Your task to perform on an android device: Go to settings Image 0: 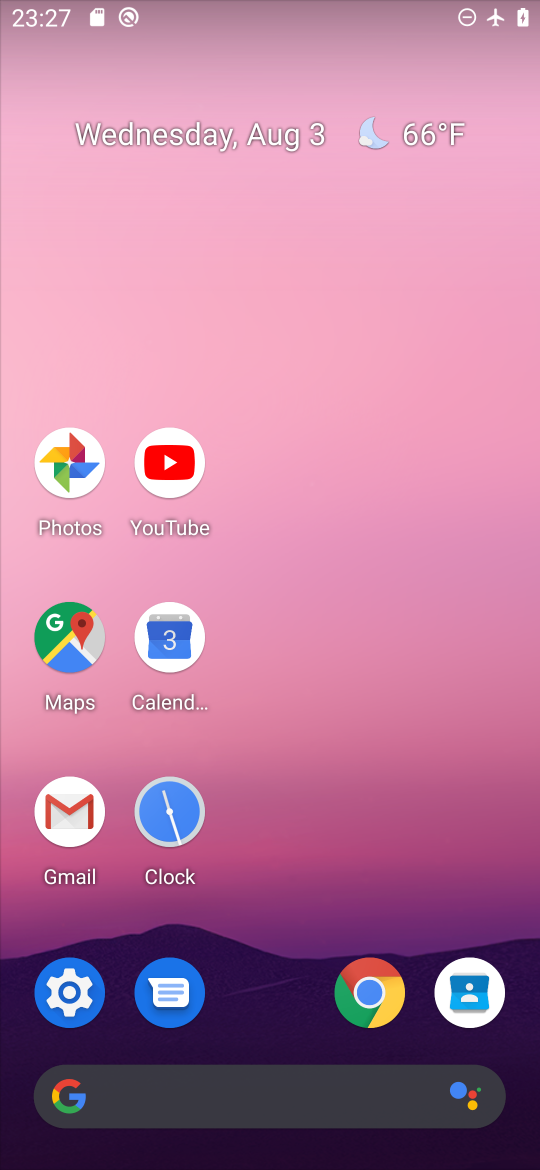
Step 0: click (72, 980)
Your task to perform on an android device: Go to settings Image 1: 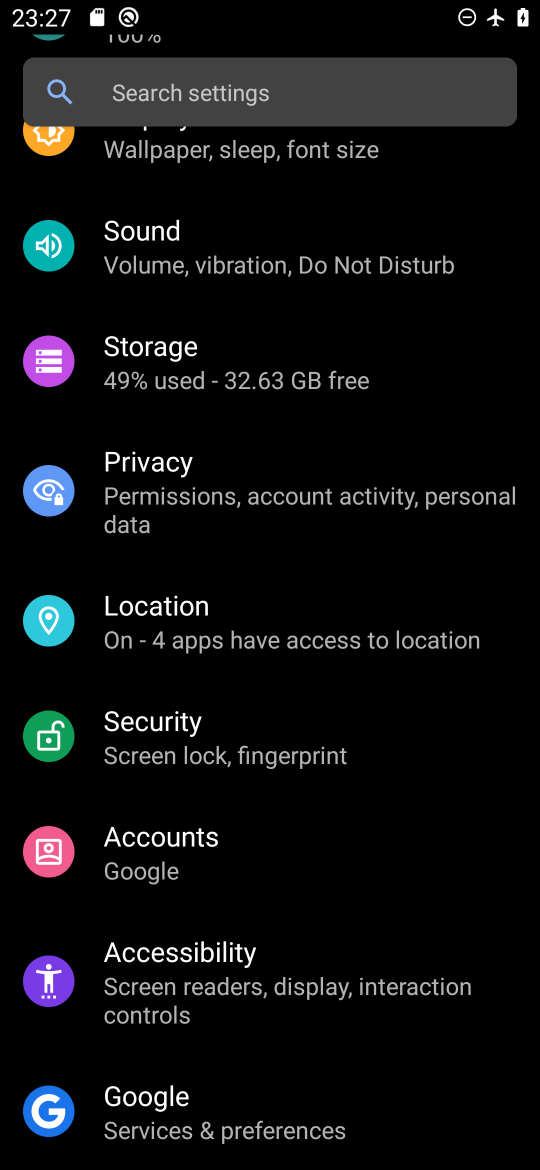
Step 1: task complete